Your task to perform on an android device: change the clock style Image 0: 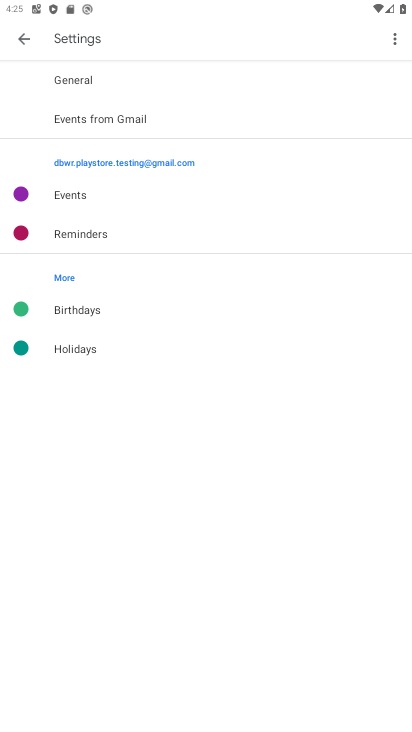
Step 0: press home button
Your task to perform on an android device: change the clock style Image 1: 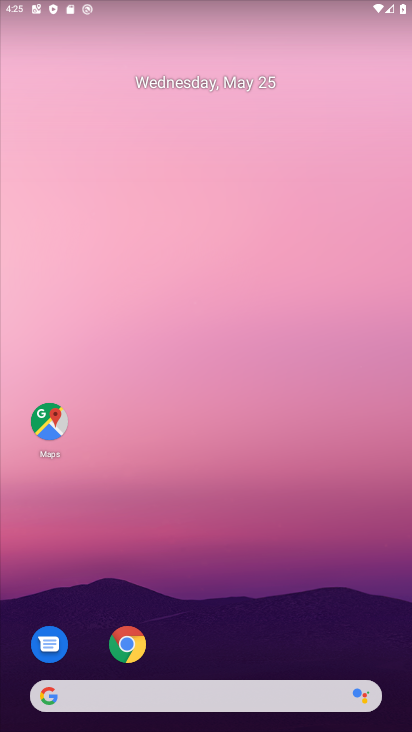
Step 1: drag from (222, 663) to (199, 25)
Your task to perform on an android device: change the clock style Image 2: 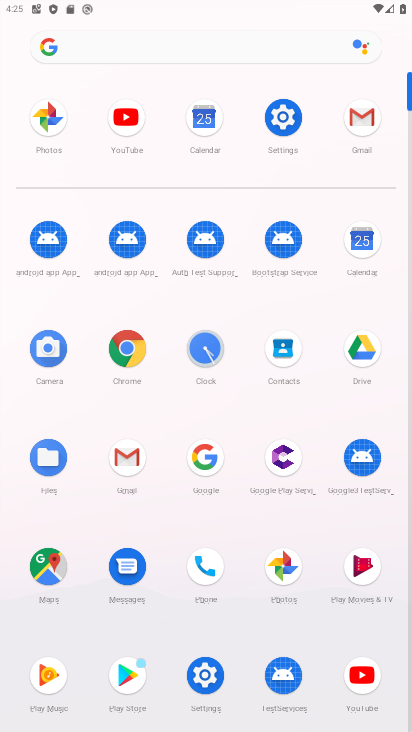
Step 2: click (194, 353)
Your task to perform on an android device: change the clock style Image 3: 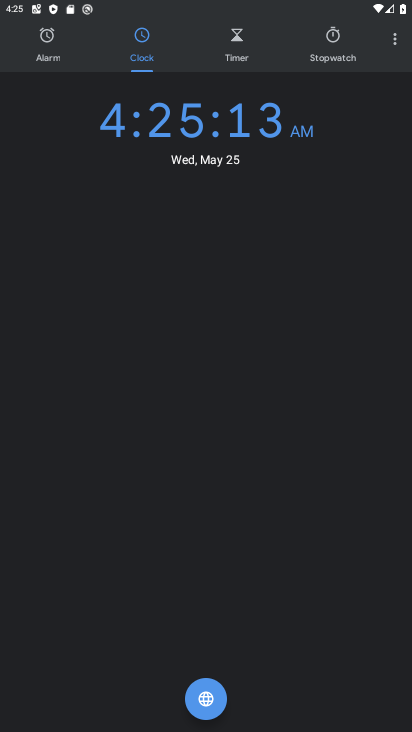
Step 3: click (396, 39)
Your task to perform on an android device: change the clock style Image 4: 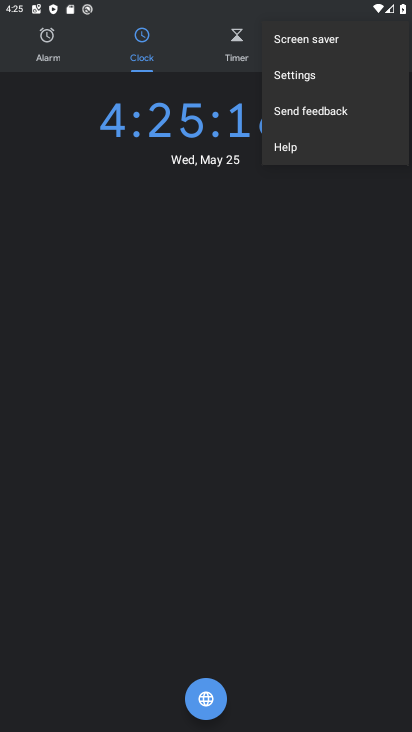
Step 4: click (303, 72)
Your task to perform on an android device: change the clock style Image 5: 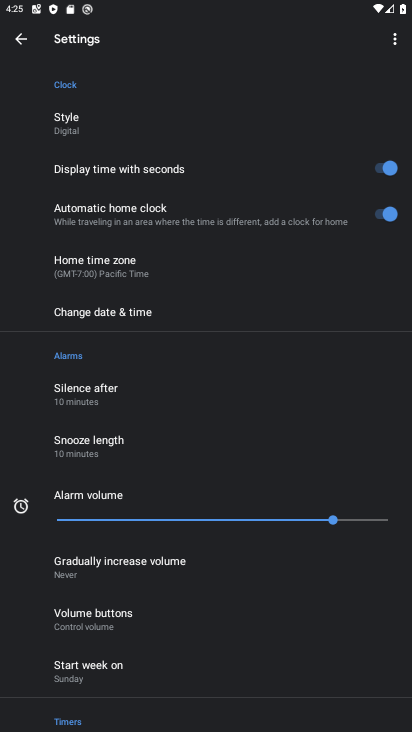
Step 5: click (61, 130)
Your task to perform on an android device: change the clock style Image 6: 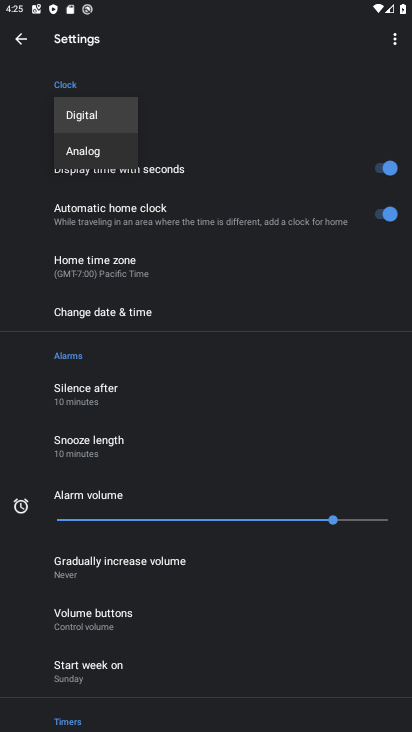
Step 6: click (78, 150)
Your task to perform on an android device: change the clock style Image 7: 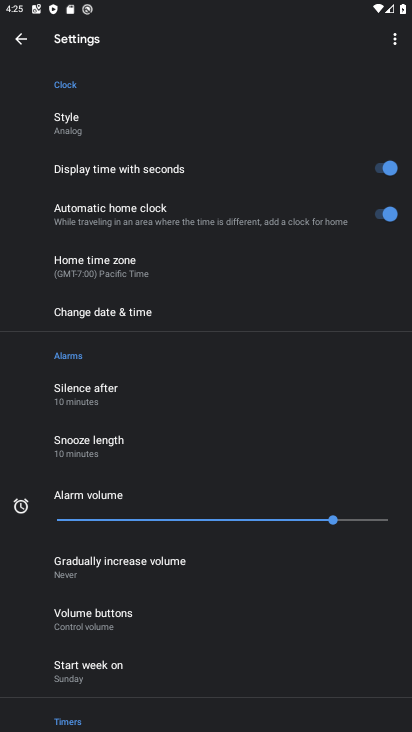
Step 7: task complete